Your task to perform on an android device: Open Youtube and go to "Your channel" Image 0: 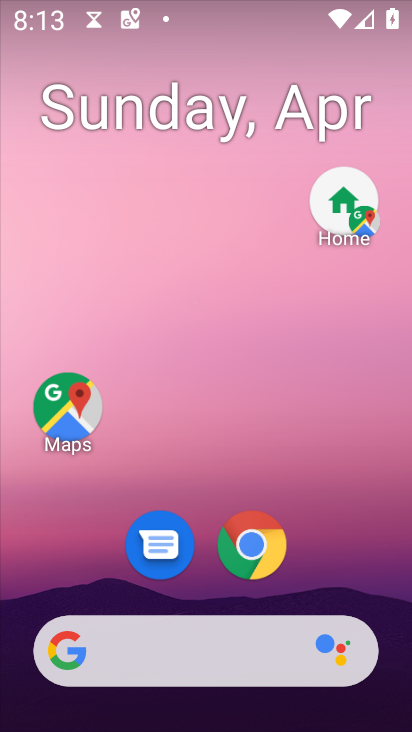
Step 0: drag from (313, 565) to (305, 213)
Your task to perform on an android device: Open Youtube and go to "Your channel" Image 1: 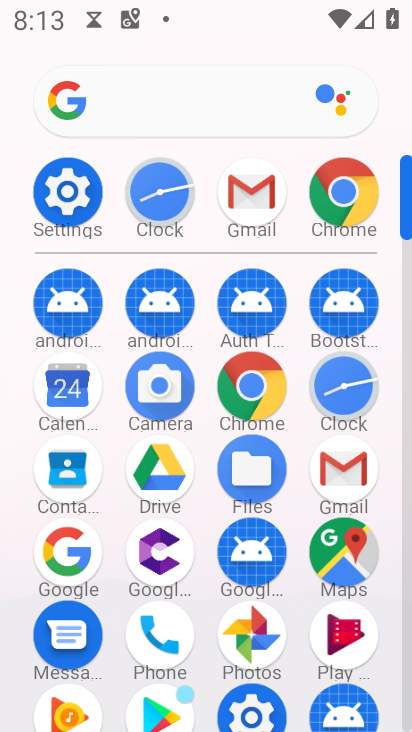
Step 1: drag from (273, 544) to (296, 152)
Your task to perform on an android device: Open Youtube and go to "Your channel" Image 2: 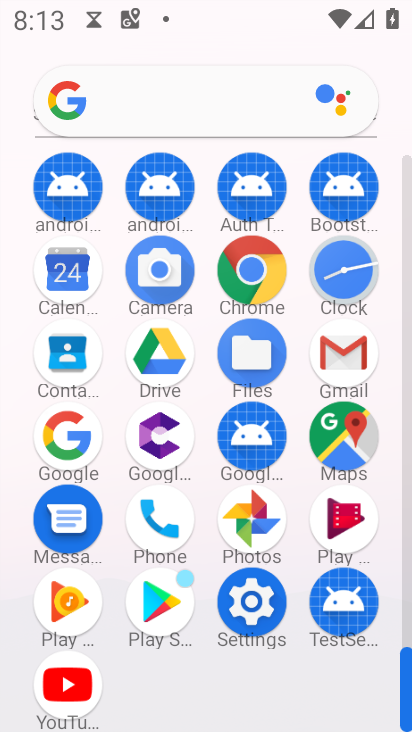
Step 2: click (67, 673)
Your task to perform on an android device: Open Youtube and go to "Your channel" Image 3: 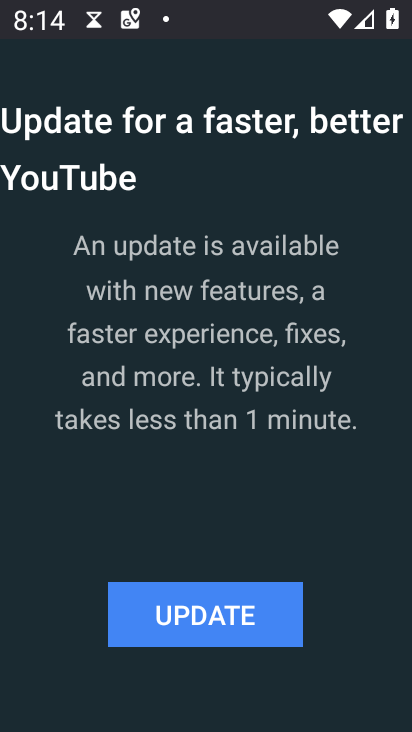
Step 3: task complete